Your task to perform on an android device: Open network settings Image 0: 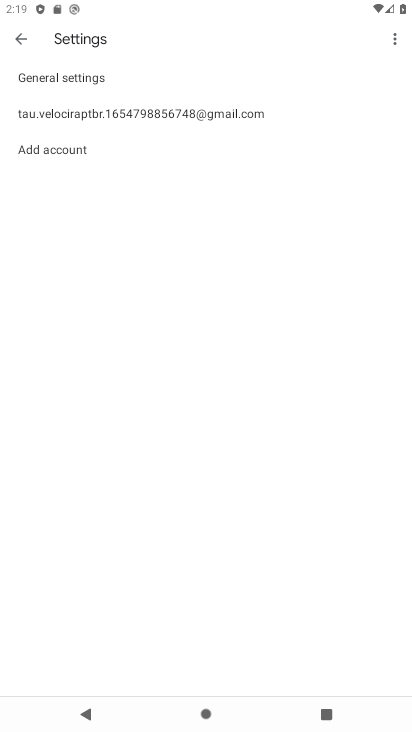
Step 0: press home button
Your task to perform on an android device: Open network settings Image 1: 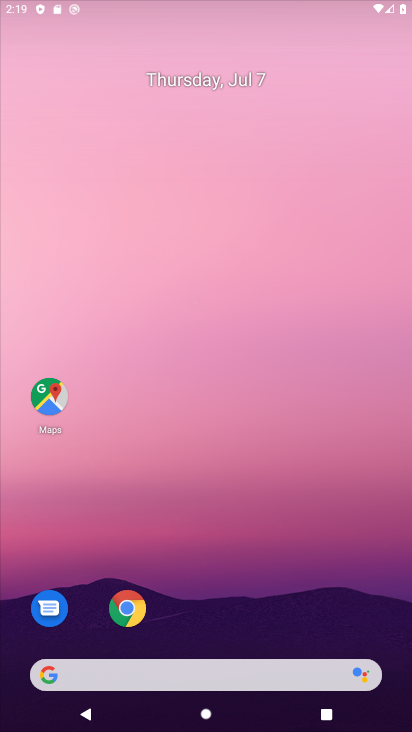
Step 1: drag from (239, 618) to (285, 114)
Your task to perform on an android device: Open network settings Image 2: 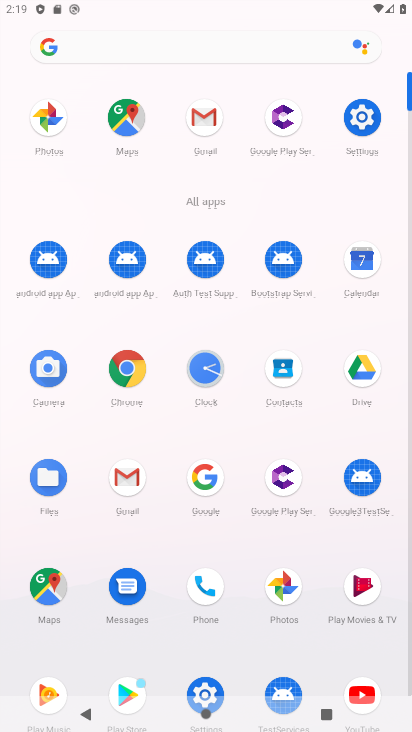
Step 2: click (368, 112)
Your task to perform on an android device: Open network settings Image 3: 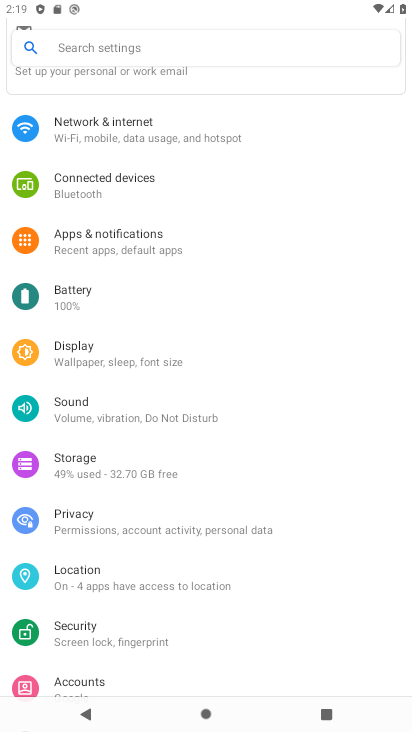
Step 3: click (156, 134)
Your task to perform on an android device: Open network settings Image 4: 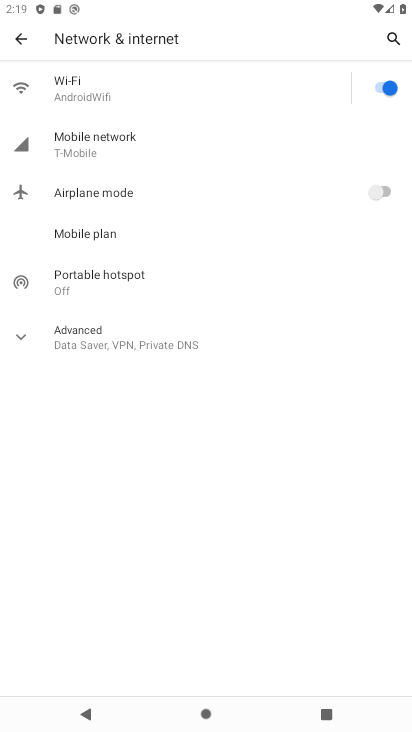
Step 4: click (111, 142)
Your task to perform on an android device: Open network settings Image 5: 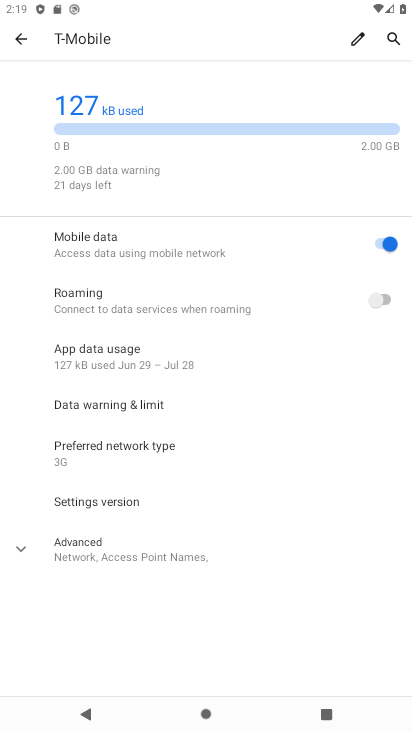
Step 5: task complete